Your task to perform on an android device: Search for asus rog on target.com, select the first entry, and add it to the cart. Image 0: 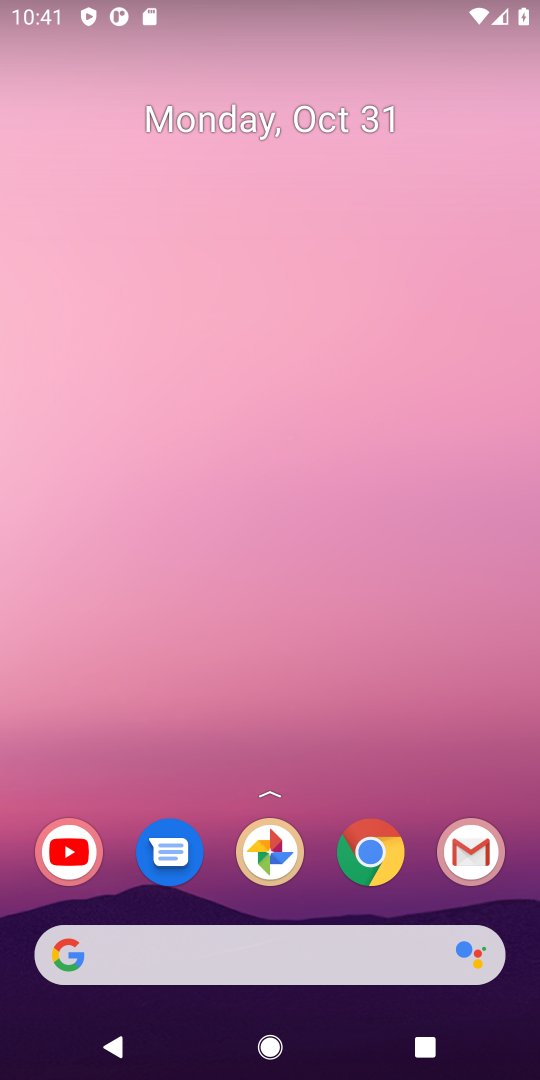
Step 0: drag from (197, 735) to (334, 182)
Your task to perform on an android device: Search for asus rog on target.com, select the first entry, and add it to the cart. Image 1: 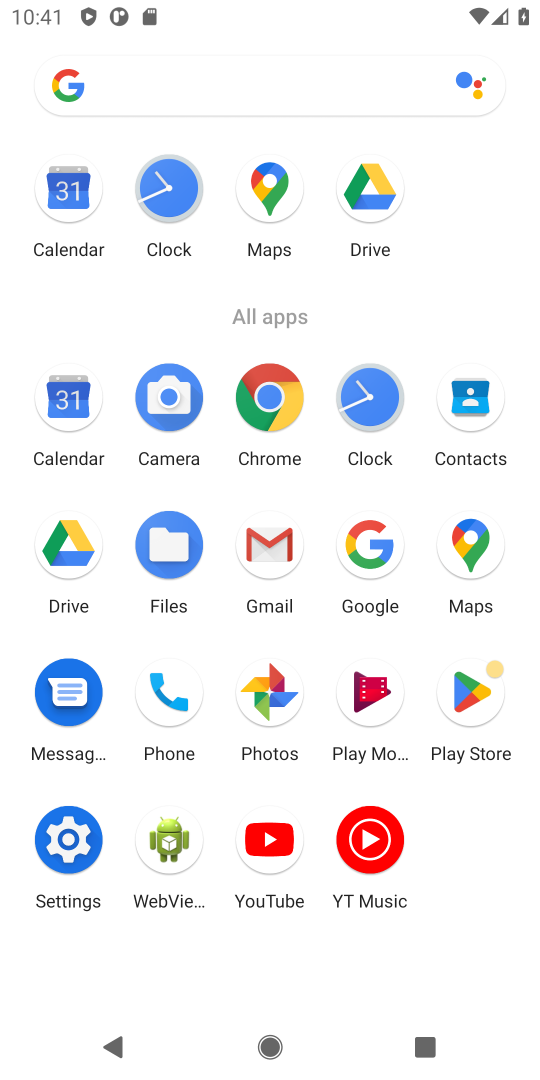
Step 1: click (256, 419)
Your task to perform on an android device: Search for asus rog on target.com, select the first entry, and add it to the cart. Image 2: 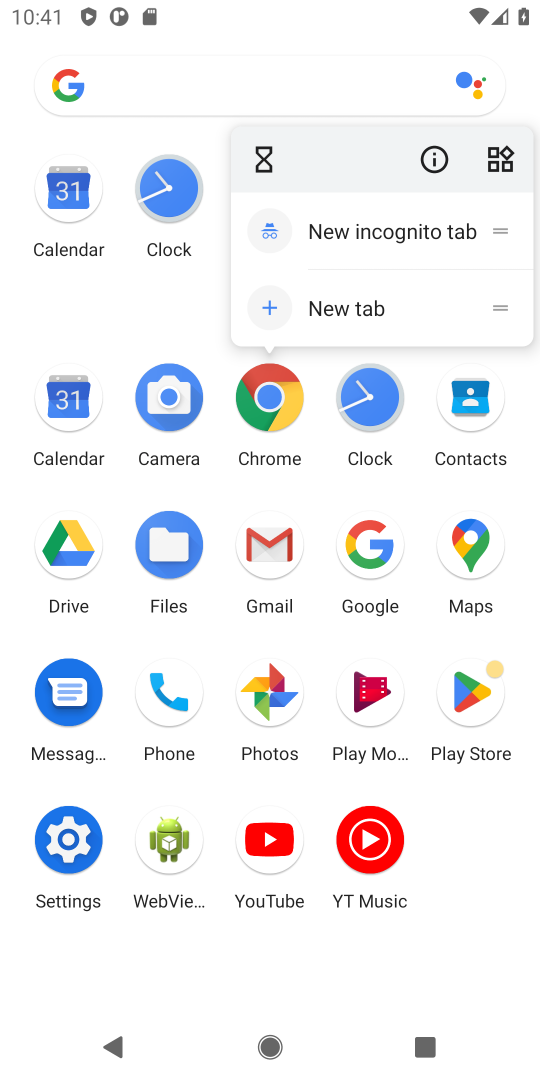
Step 2: click (256, 419)
Your task to perform on an android device: Search for asus rog on target.com, select the first entry, and add it to the cart. Image 3: 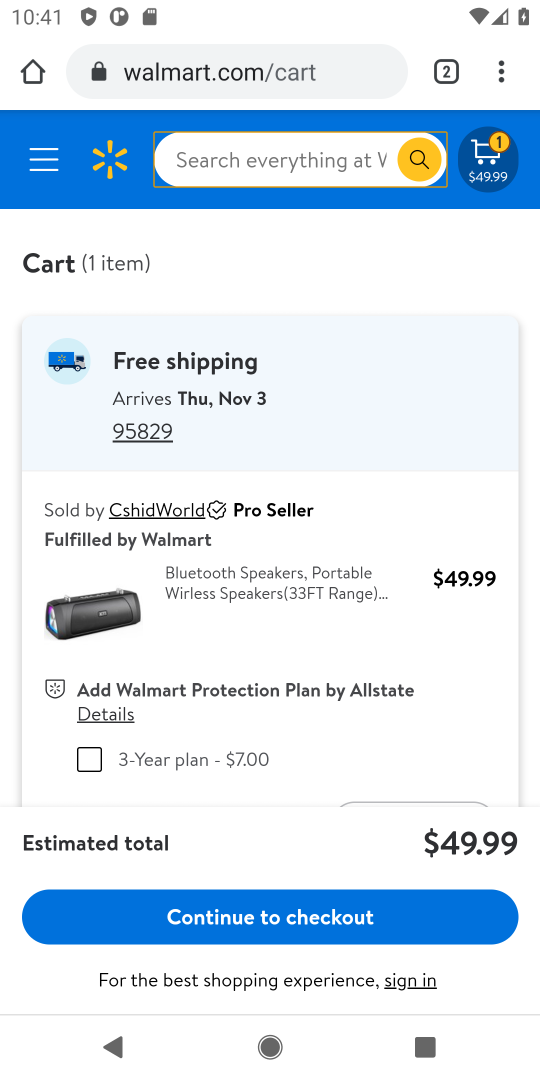
Step 3: click (230, 61)
Your task to perform on an android device: Search for asus rog on target.com, select the first entry, and add it to the cart. Image 4: 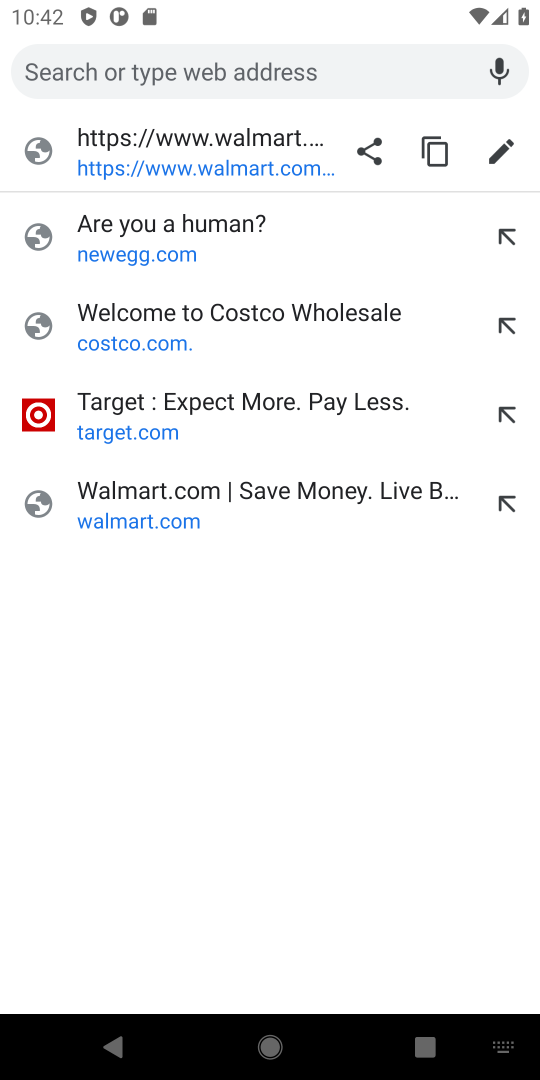
Step 4: click (422, 736)
Your task to perform on an android device: Search for asus rog on target.com, select the first entry, and add it to the cart. Image 5: 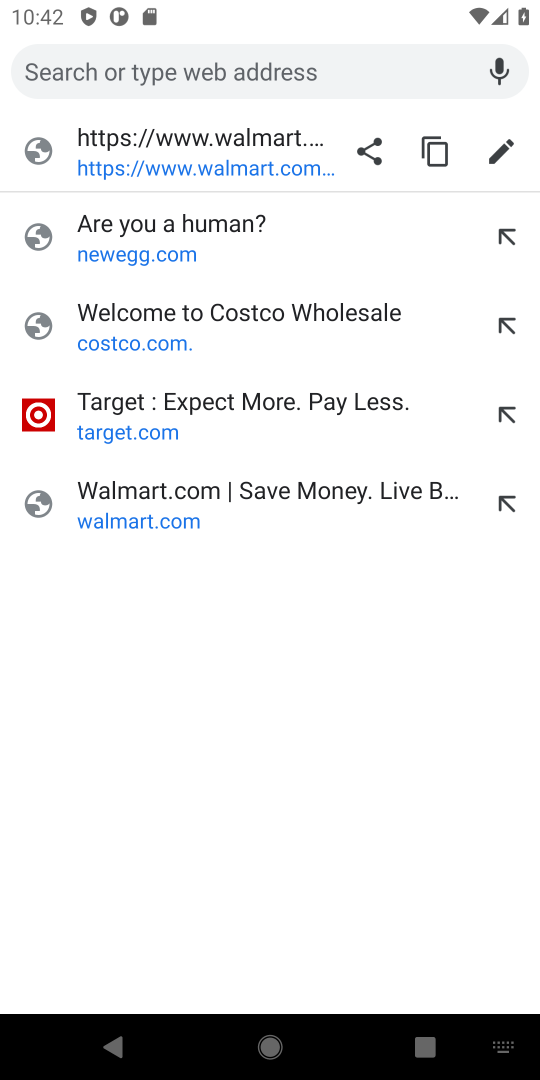
Step 5: type "target.com,"
Your task to perform on an android device: Search for asus rog on target.com, select the first entry, and add it to the cart. Image 6: 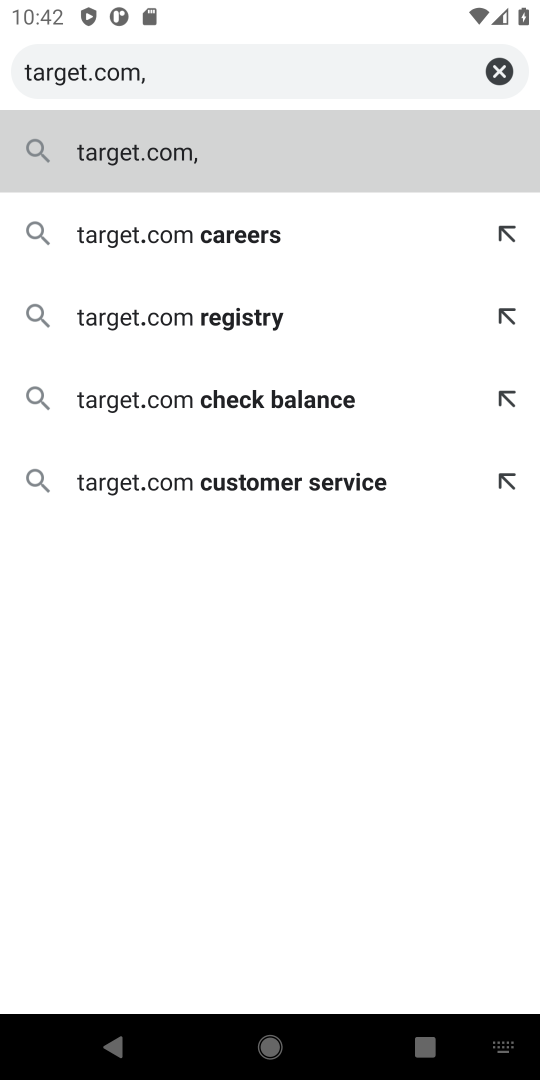
Step 6: press enter
Your task to perform on an android device: Search for asus rog on target.com, select the first entry, and add it to the cart. Image 7: 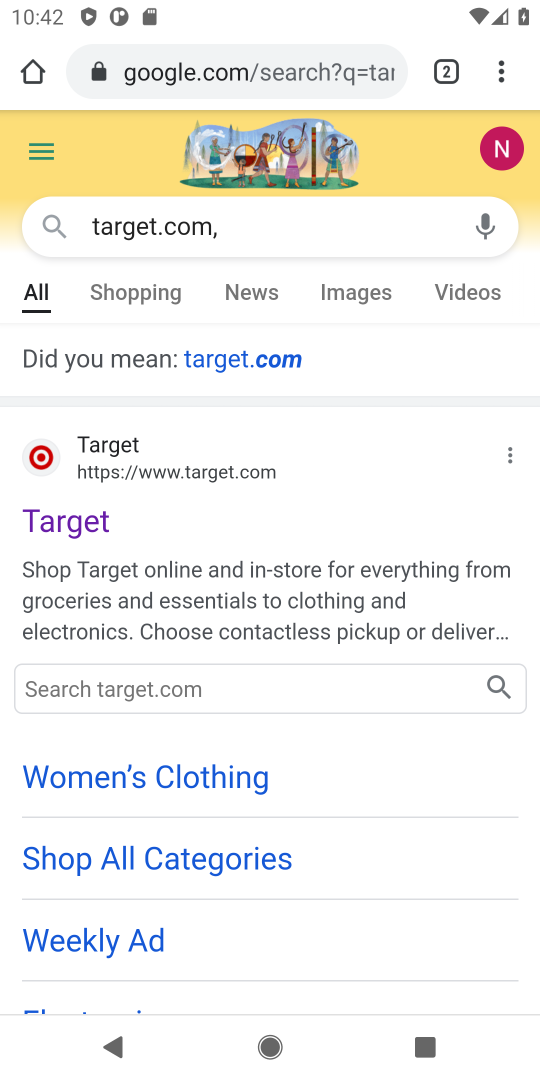
Step 7: click (60, 516)
Your task to perform on an android device: Search for asus rog on target.com, select the first entry, and add it to the cart. Image 8: 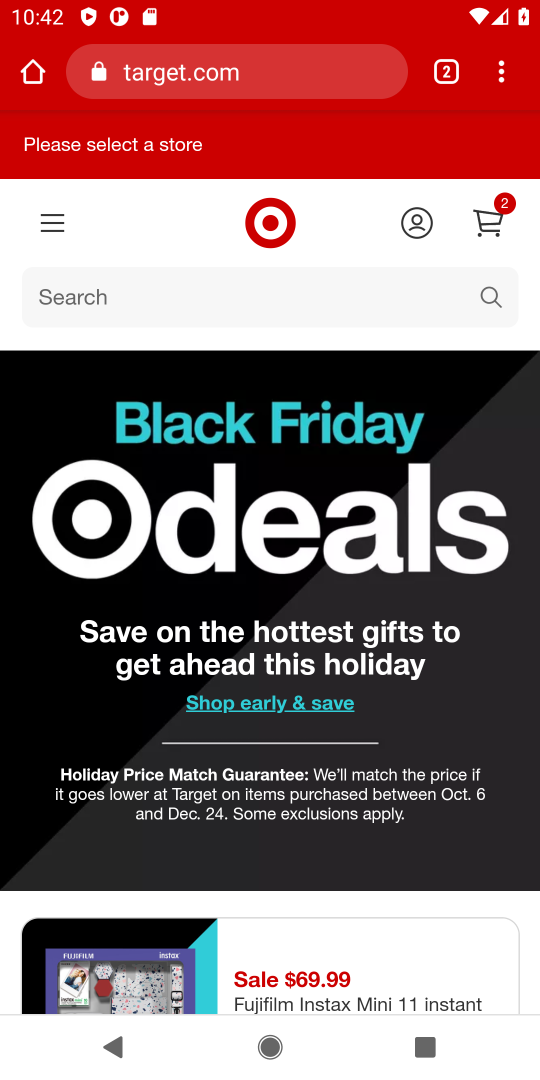
Step 8: click (188, 294)
Your task to perform on an android device: Search for asus rog on target.com, select the first entry, and add it to the cart. Image 9: 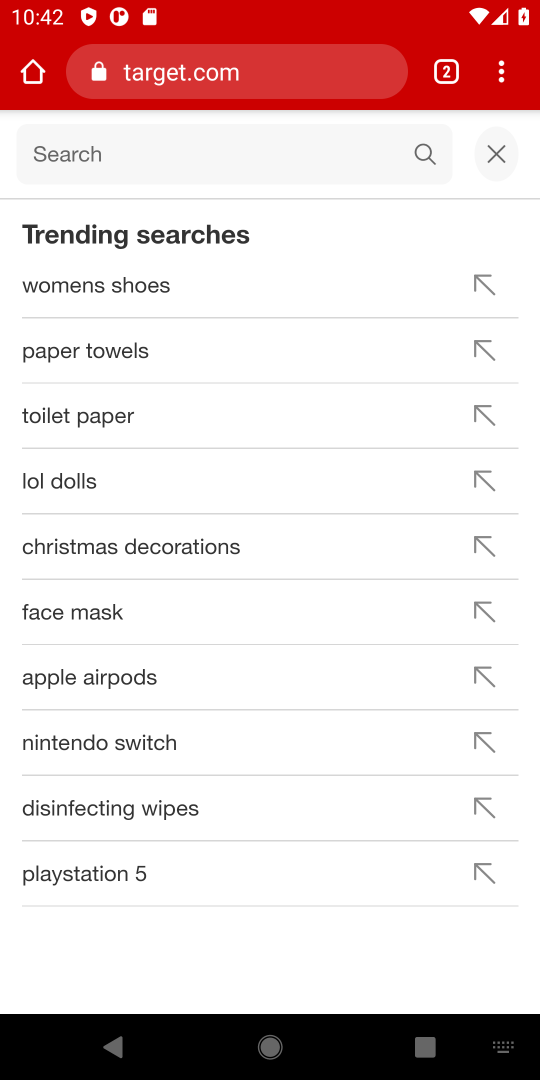
Step 9: type "asus rog "
Your task to perform on an android device: Search for asus rog on target.com, select the first entry, and add it to the cart. Image 10: 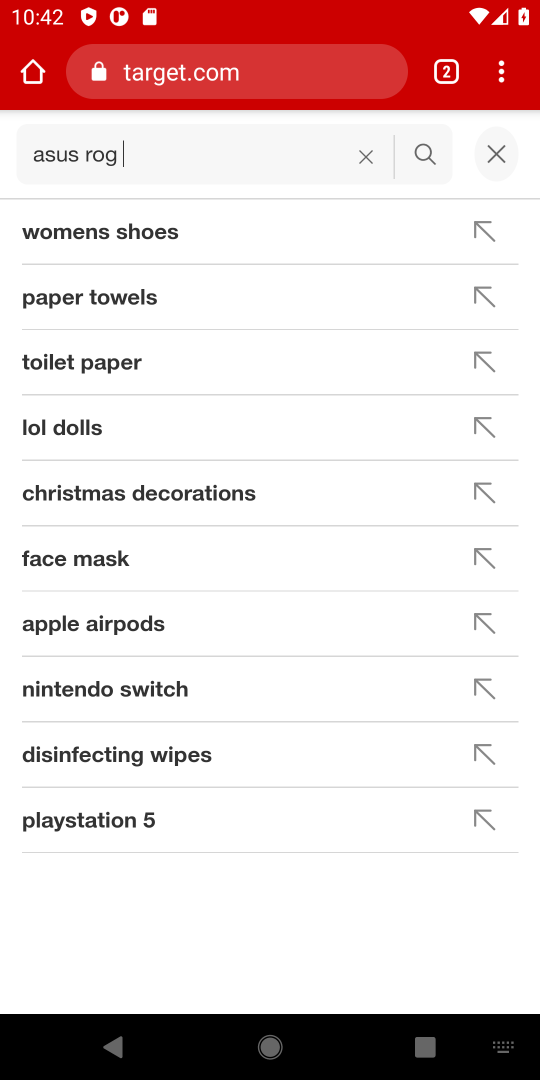
Step 10: press enter
Your task to perform on an android device: Search for asus rog on target.com, select the first entry, and add it to the cart. Image 11: 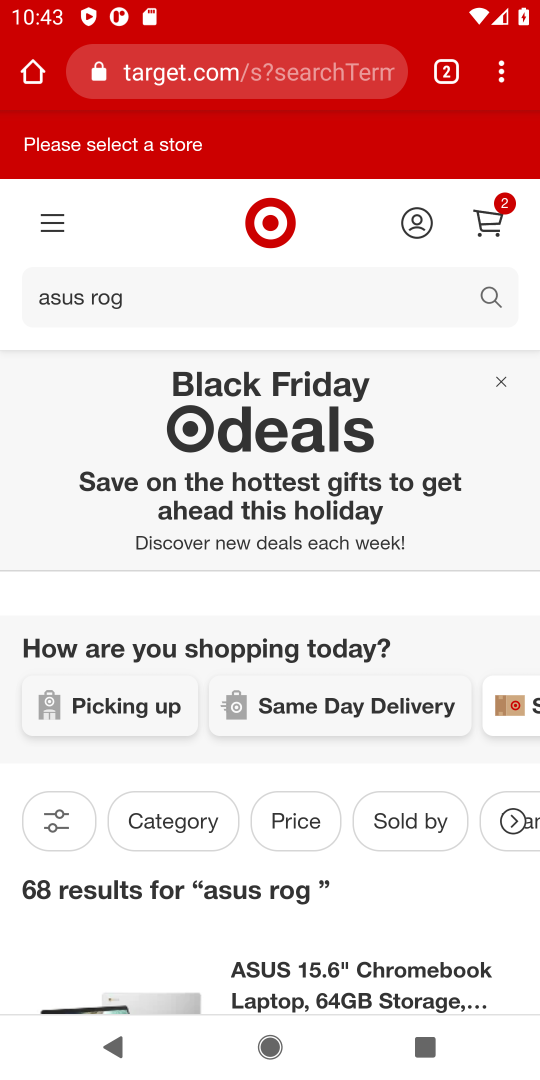
Step 11: drag from (112, 871) to (201, 369)
Your task to perform on an android device: Search for asus rog on target.com, select the first entry, and add it to the cart. Image 12: 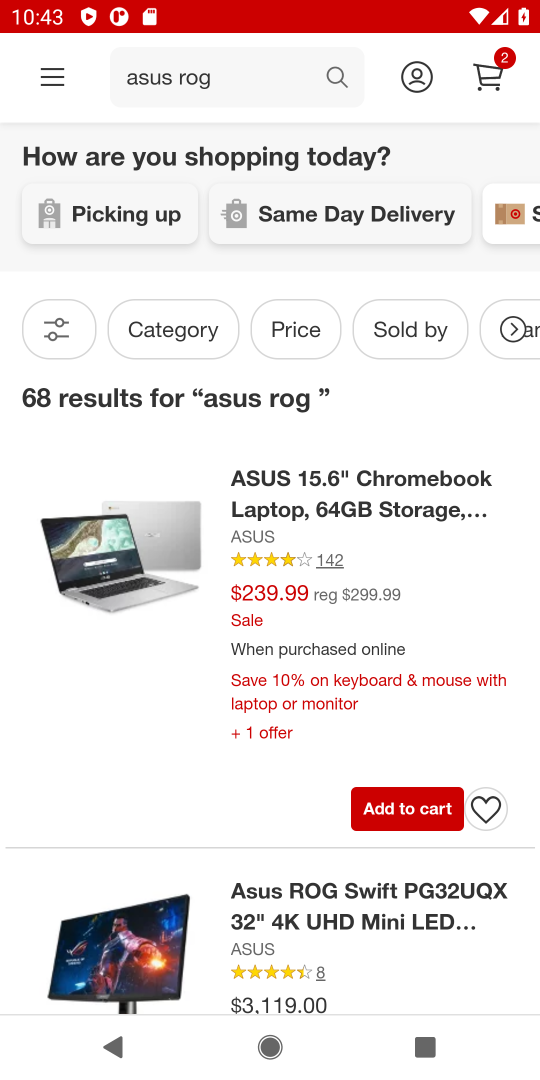
Step 12: click (408, 801)
Your task to perform on an android device: Search for asus rog on target.com, select the first entry, and add it to the cart. Image 13: 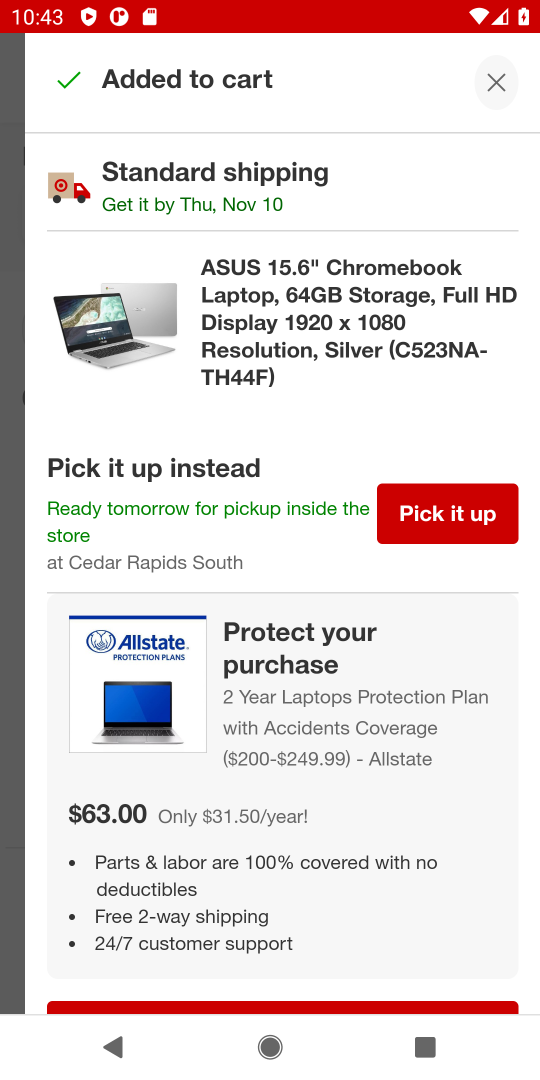
Step 13: task complete